Your task to perform on an android device: open the mobile data screen to see how much data has been used Image 0: 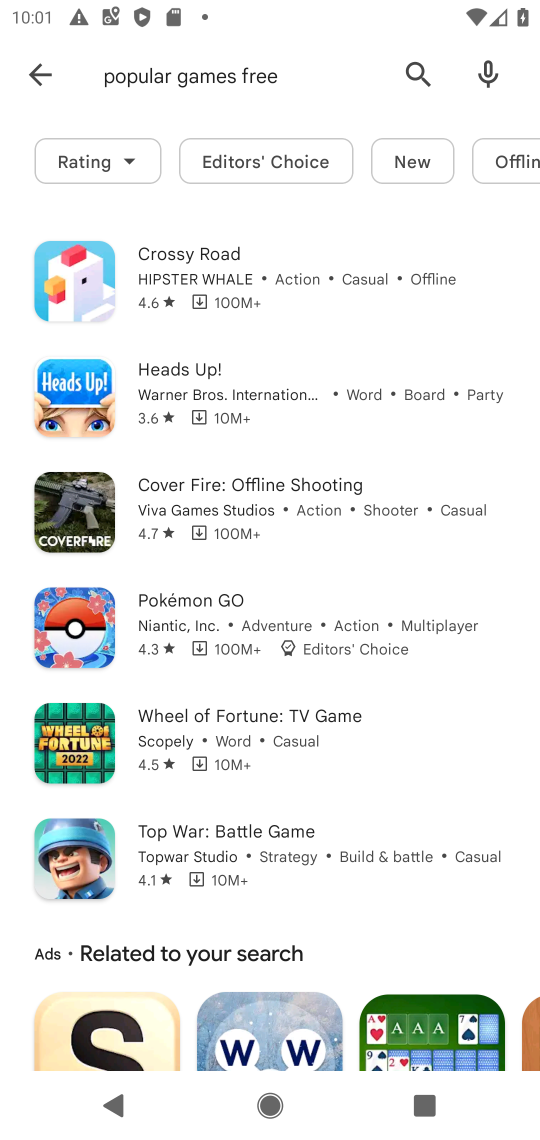
Step 0: press home button
Your task to perform on an android device: open the mobile data screen to see how much data has been used Image 1: 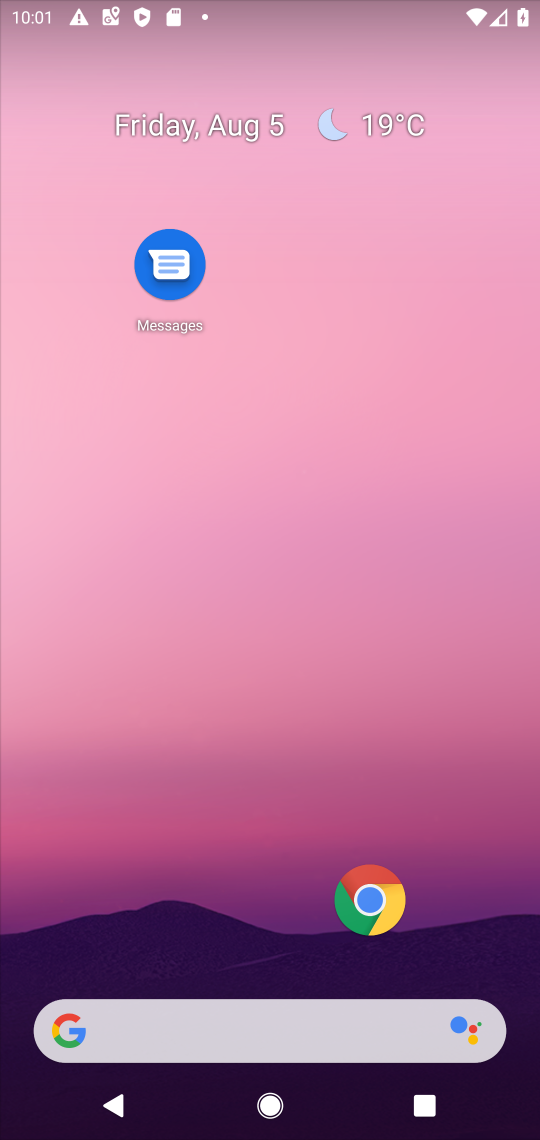
Step 1: drag from (364, 10) to (374, 829)
Your task to perform on an android device: open the mobile data screen to see how much data has been used Image 2: 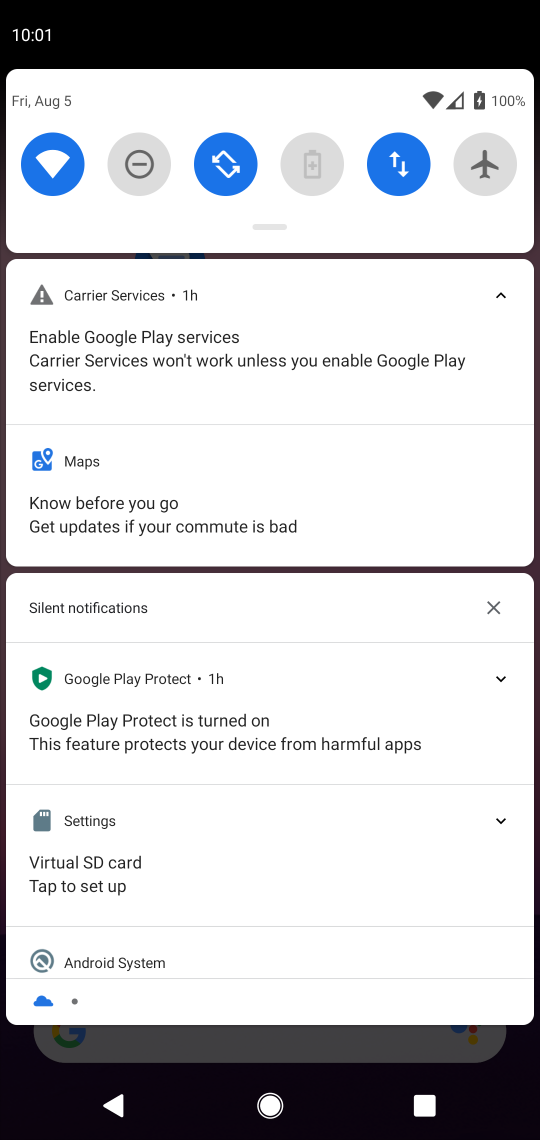
Step 2: click (386, 144)
Your task to perform on an android device: open the mobile data screen to see how much data has been used Image 3: 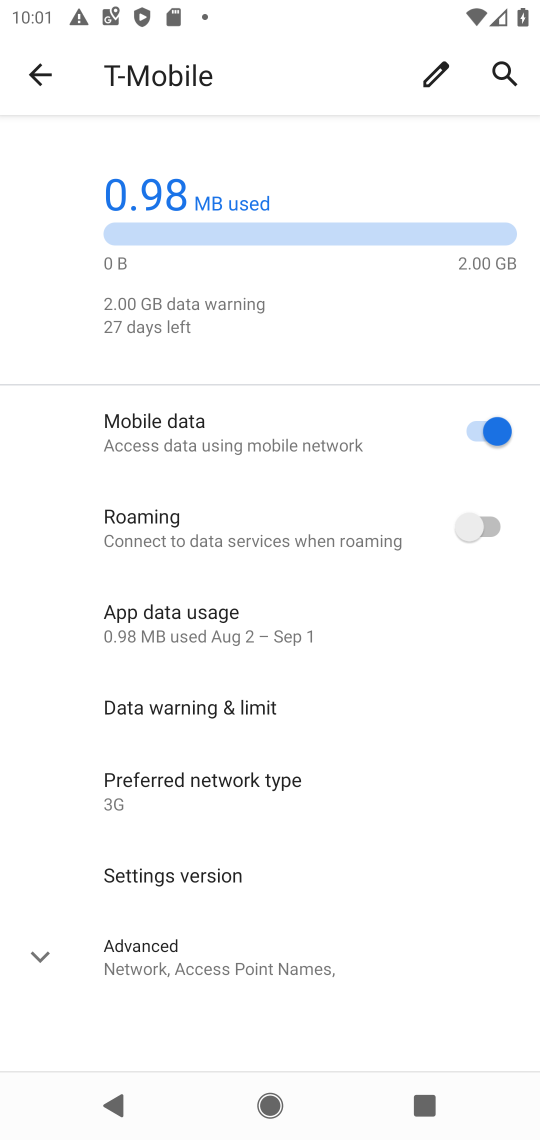
Step 3: task complete